Your task to perform on an android device: Open Android settings Image 0: 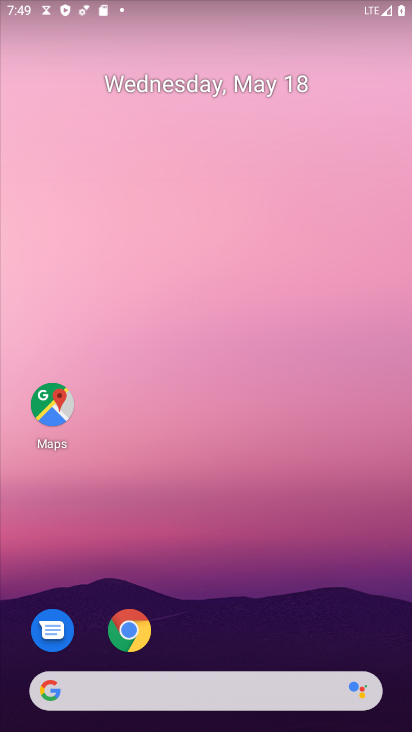
Step 0: drag from (256, 492) to (265, 118)
Your task to perform on an android device: Open Android settings Image 1: 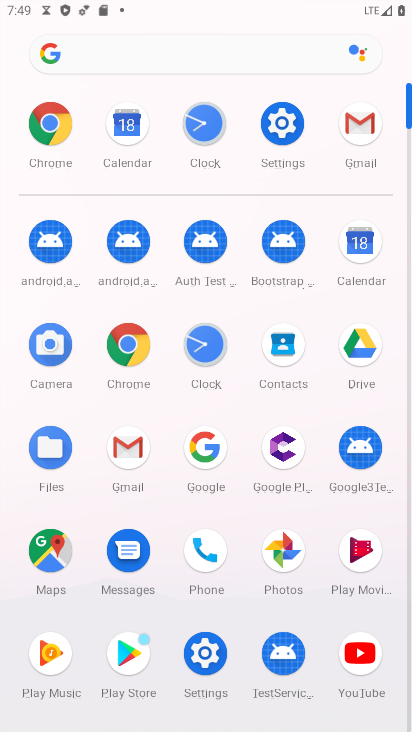
Step 1: click (276, 138)
Your task to perform on an android device: Open Android settings Image 2: 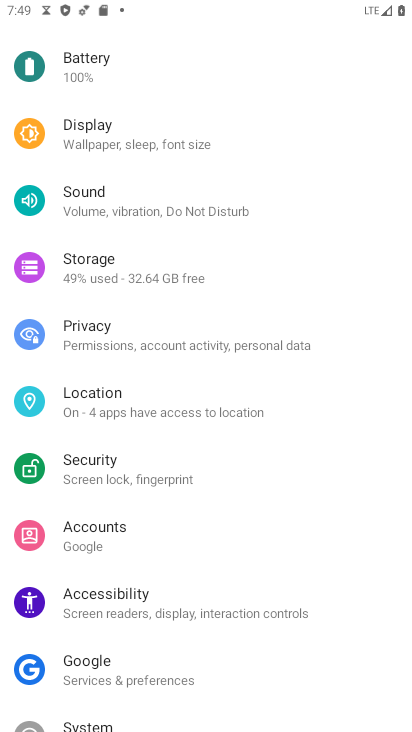
Step 2: task complete